Your task to perform on an android device: Open my contact list Image 0: 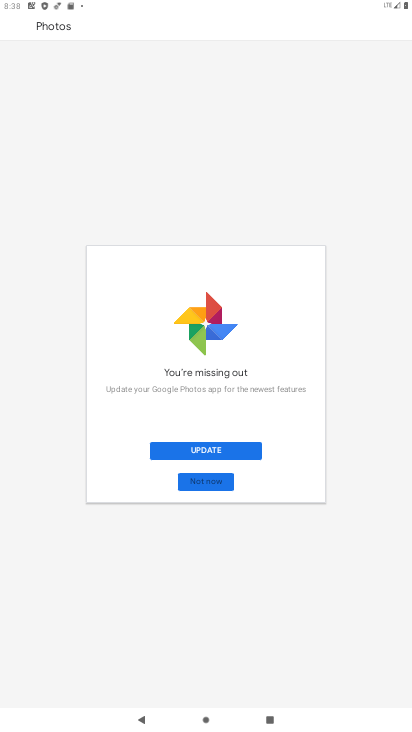
Step 0: press home button
Your task to perform on an android device: Open my contact list Image 1: 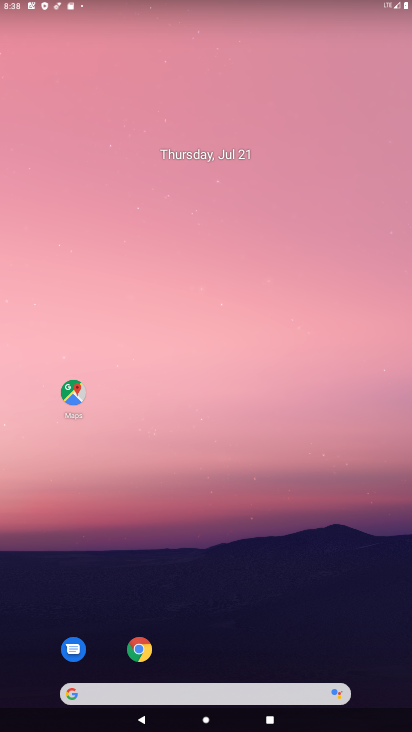
Step 1: drag from (186, 654) to (355, 29)
Your task to perform on an android device: Open my contact list Image 2: 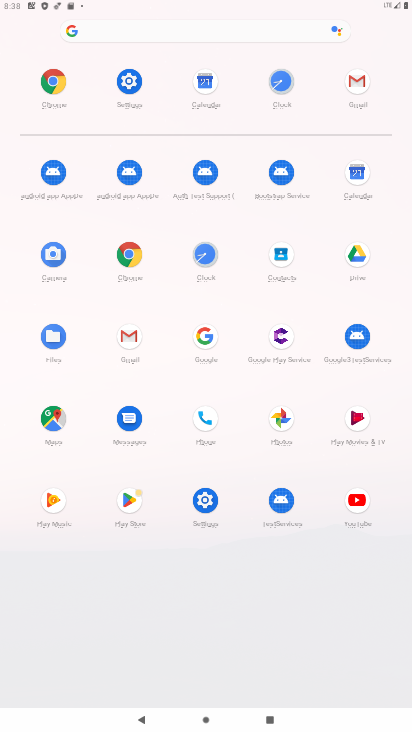
Step 2: click (279, 261)
Your task to perform on an android device: Open my contact list Image 3: 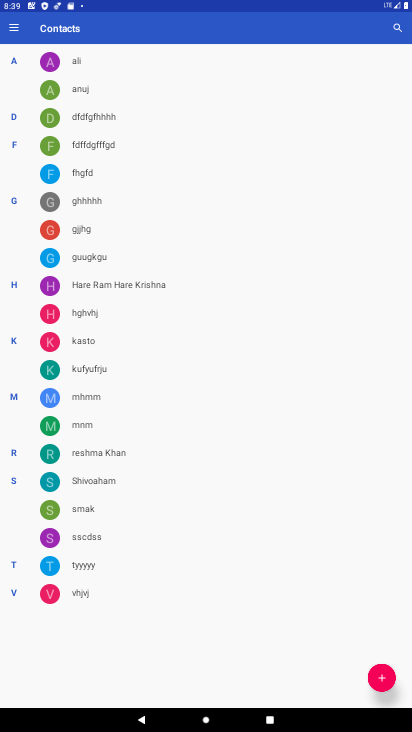
Step 3: task complete